Your task to perform on an android device: turn off priority inbox in the gmail app Image 0: 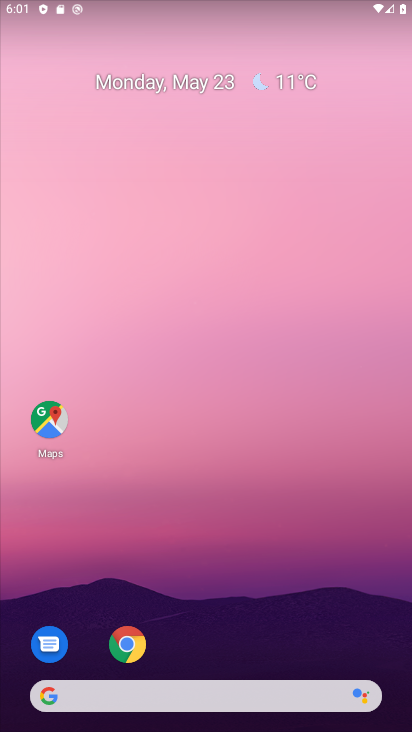
Step 0: drag from (188, 642) to (204, 285)
Your task to perform on an android device: turn off priority inbox in the gmail app Image 1: 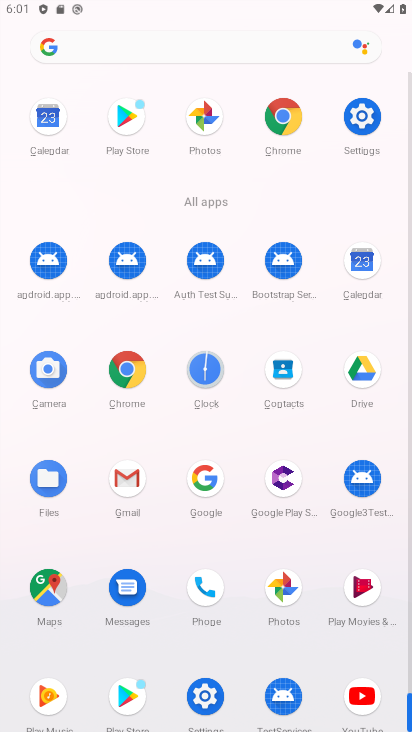
Step 1: click (130, 491)
Your task to perform on an android device: turn off priority inbox in the gmail app Image 2: 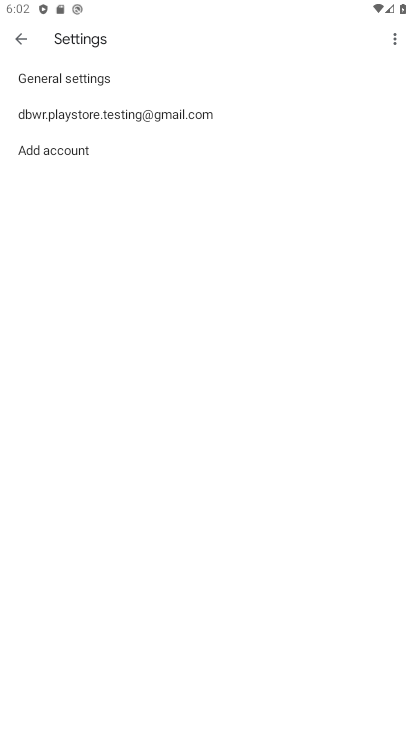
Step 2: click (122, 110)
Your task to perform on an android device: turn off priority inbox in the gmail app Image 3: 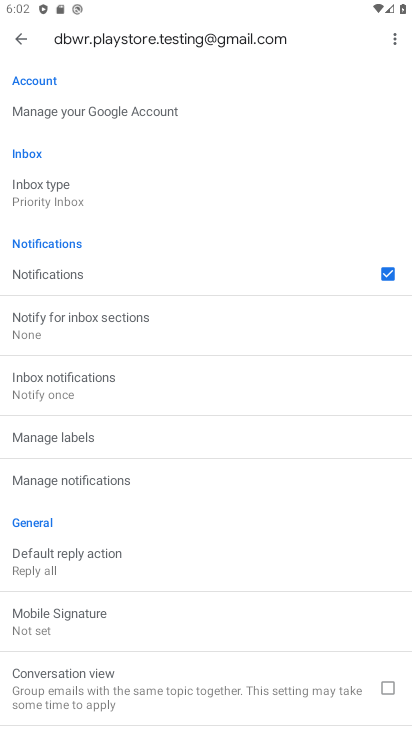
Step 3: click (78, 200)
Your task to perform on an android device: turn off priority inbox in the gmail app Image 4: 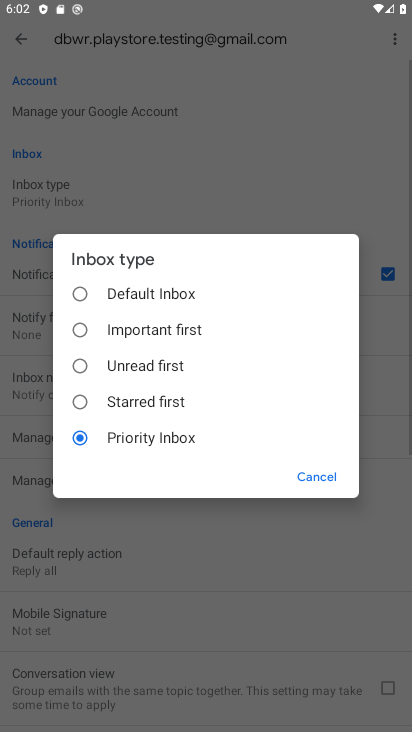
Step 4: click (91, 295)
Your task to perform on an android device: turn off priority inbox in the gmail app Image 5: 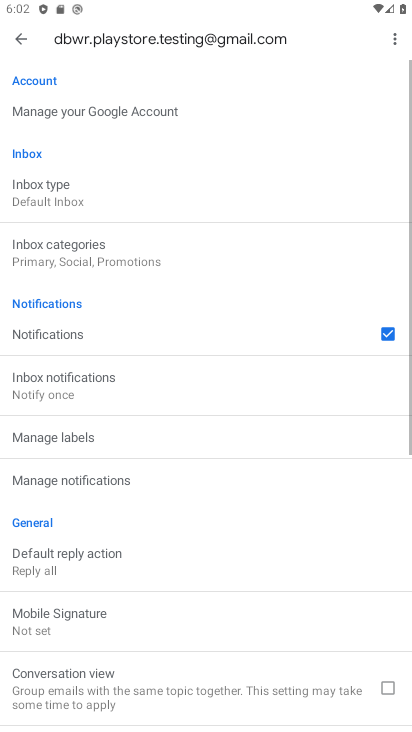
Step 5: task complete